Your task to perform on an android device: open the mobile data screen to see how much data has been used Image 0: 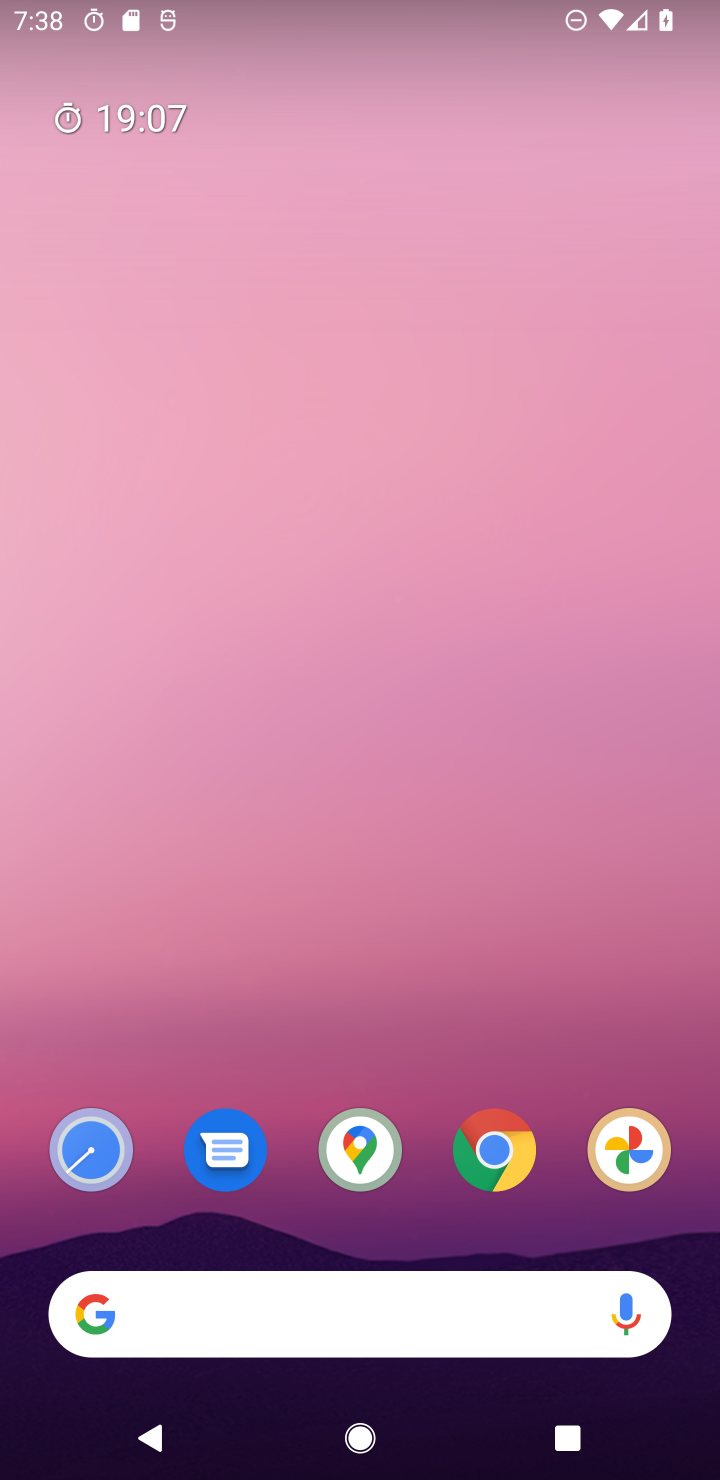
Step 0: drag from (426, 1268) to (414, 17)
Your task to perform on an android device: open the mobile data screen to see how much data has been used Image 1: 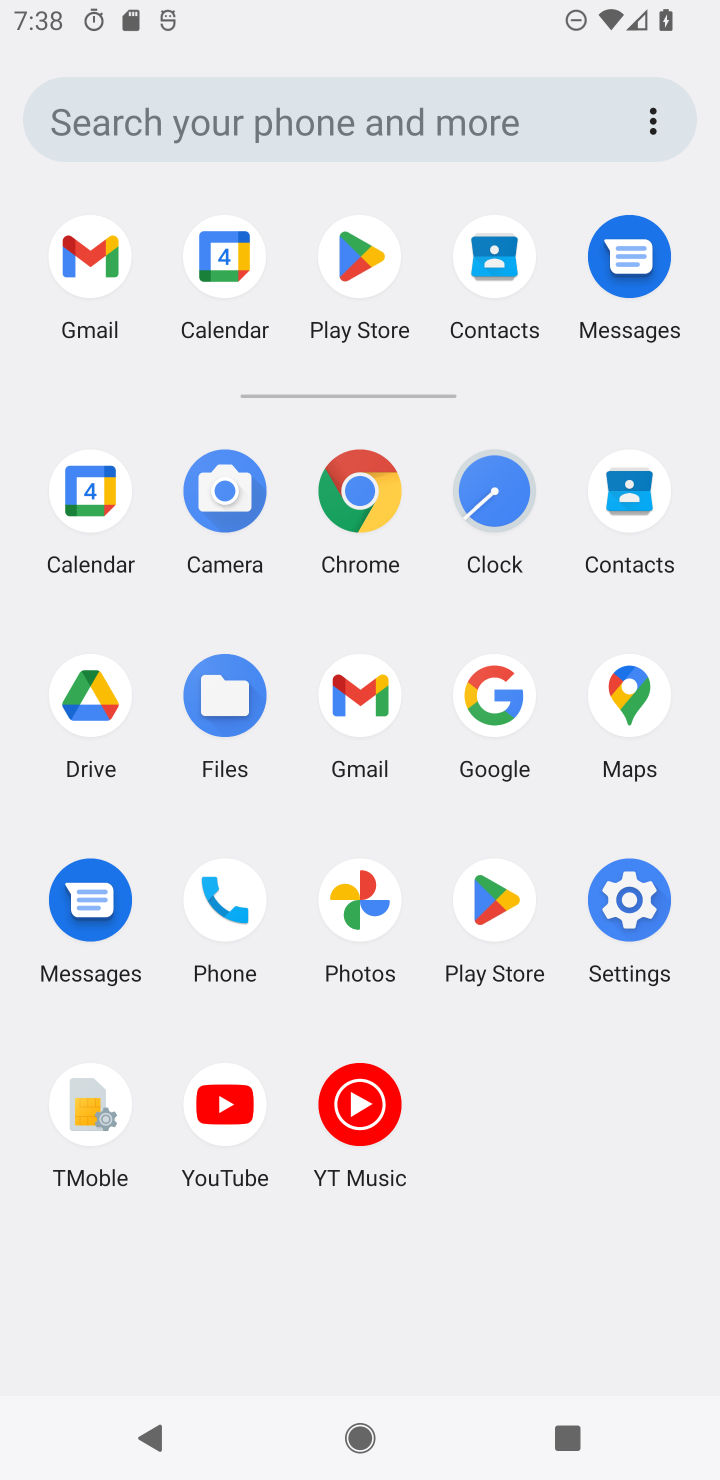
Step 1: click (625, 905)
Your task to perform on an android device: open the mobile data screen to see how much data has been used Image 2: 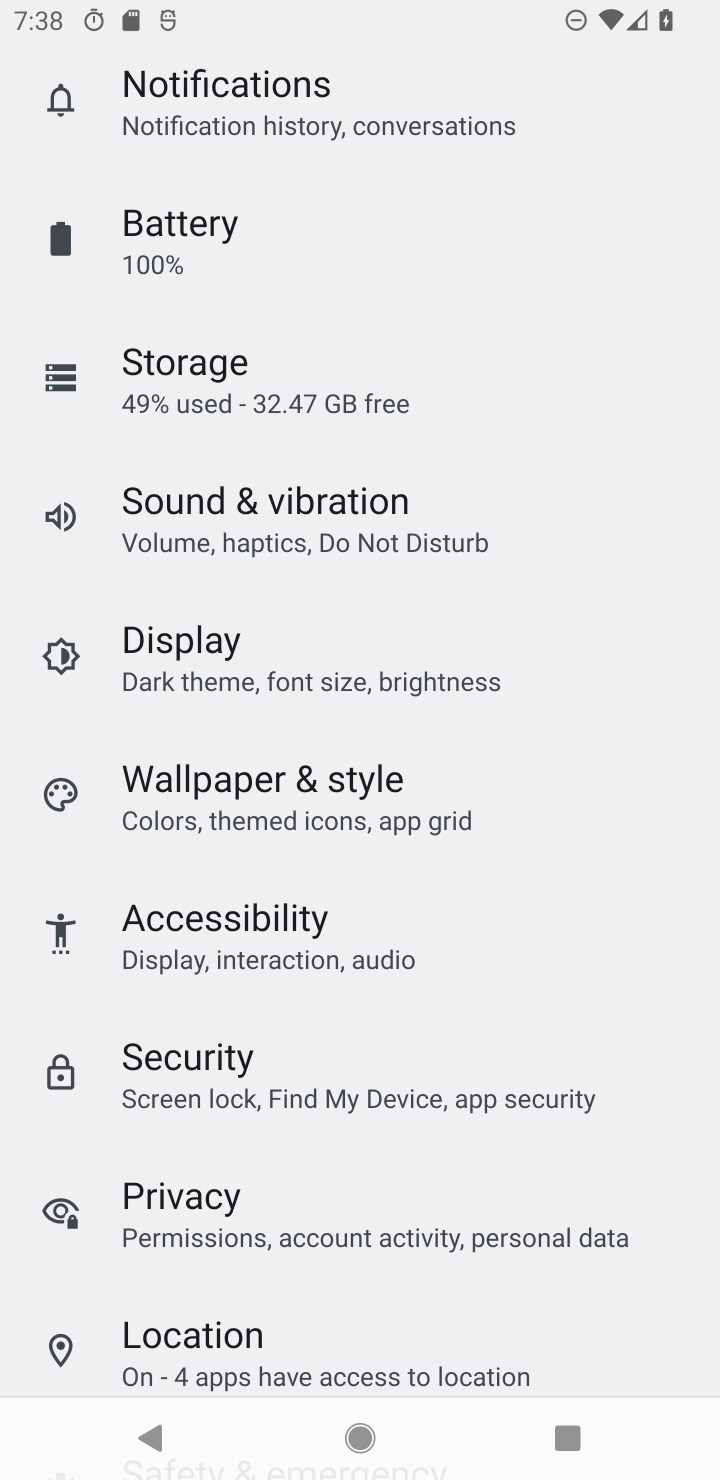
Step 2: drag from (427, 282) to (433, 1428)
Your task to perform on an android device: open the mobile data screen to see how much data has been used Image 3: 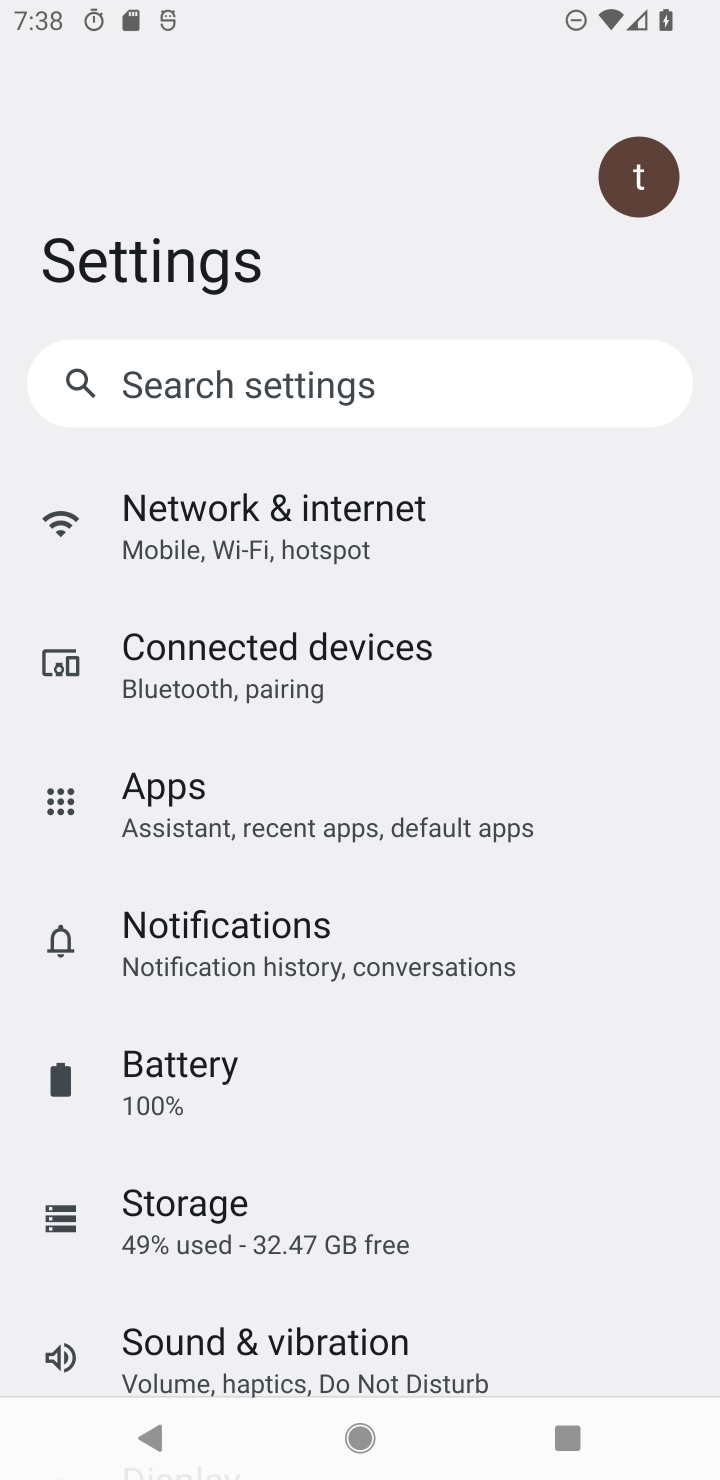
Step 3: click (312, 529)
Your task to perform on an android device: open the mobile data screen to see how much data has been used Image 4: 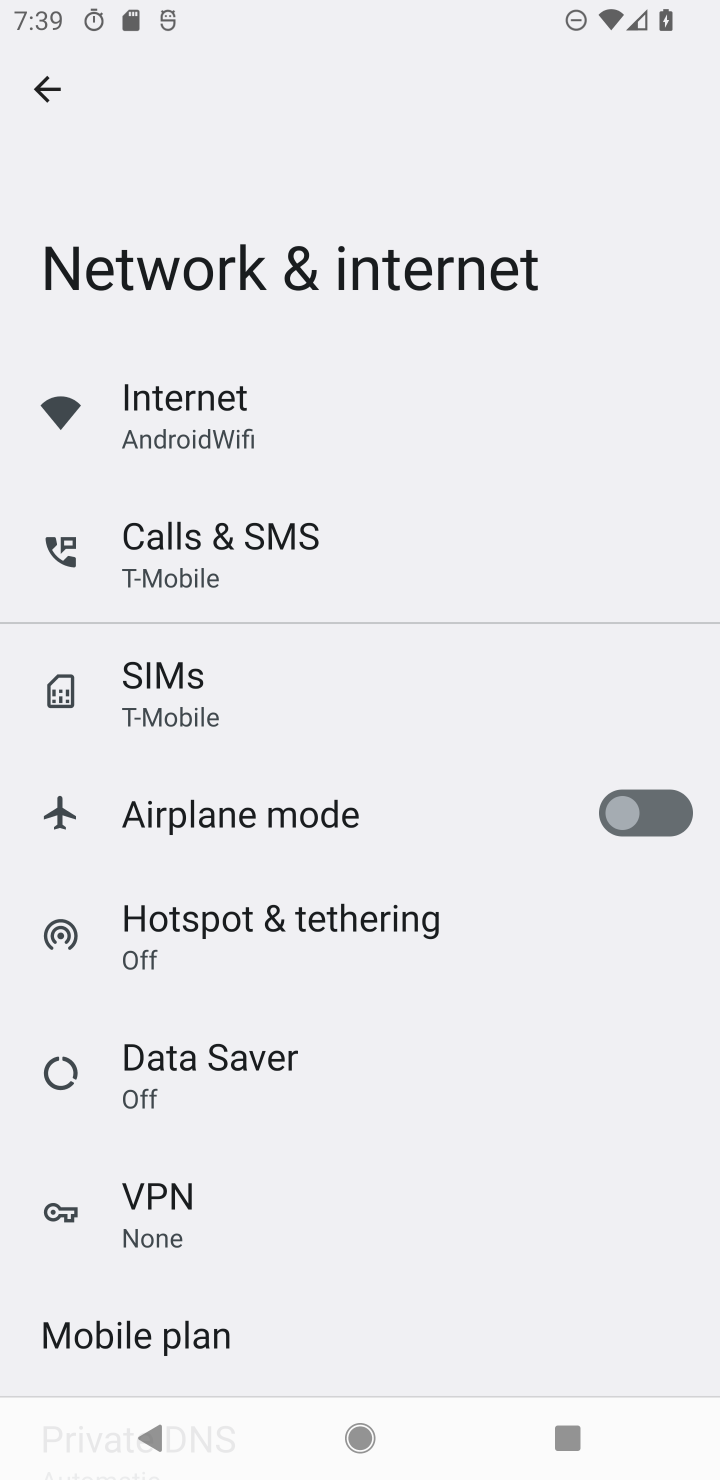
Step 4: click (179, 1321)
Your task to perform on an android device: open the mobile data screen to see how much data has been used Image 5: 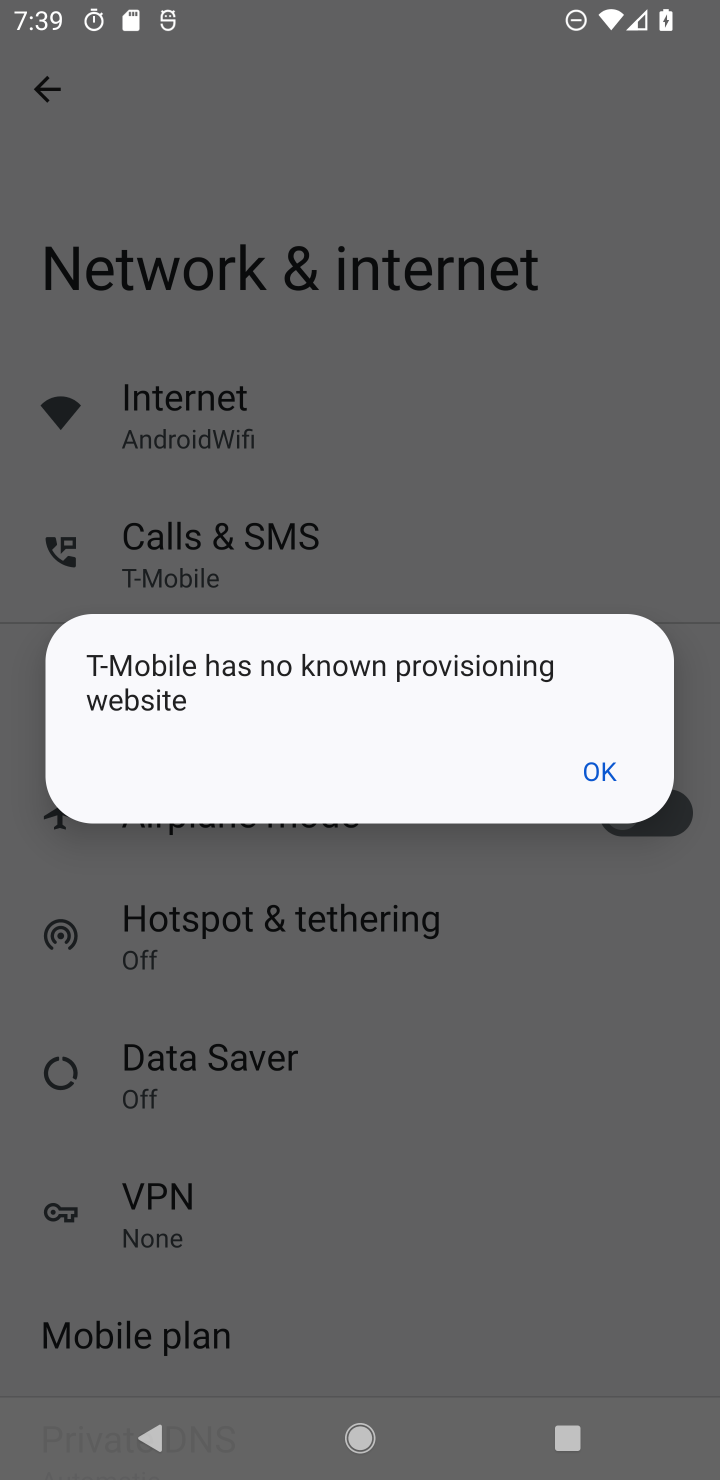
Step 5: task complete